Your task to perform on an android device: Show the shopping cart on costco.com. Add logitech g pro to the cart on costco.com, then select checkout. Image 0: 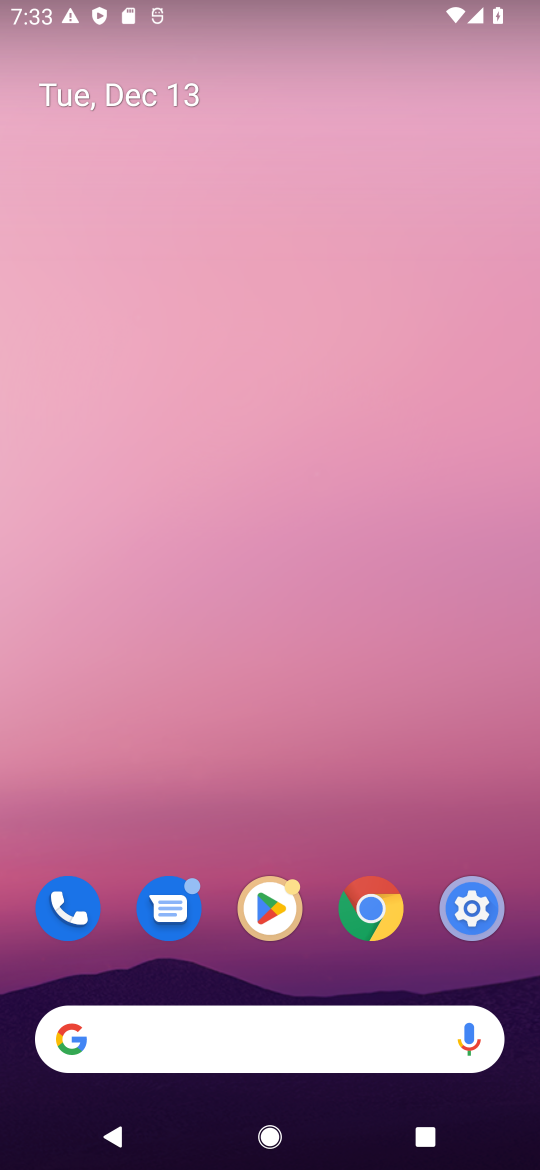
Step 0: press home button
Your task to perform on an android device: Show the shopping cart on costco.com. Add logitech g pro to the cart on costco.com, then select checkout. Image 1: 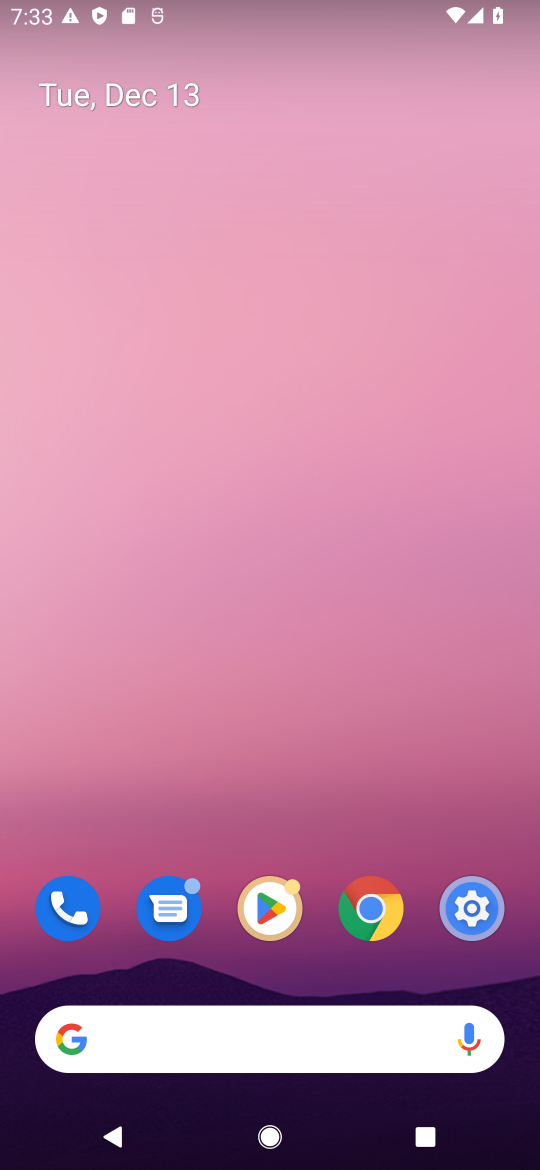
Step 1: click (121, 1026)
Your task to perform on an android device: Show the shopping cart on costco.com. Add logitech g pro to the cart on costco.com, then select checkout. Image 2: 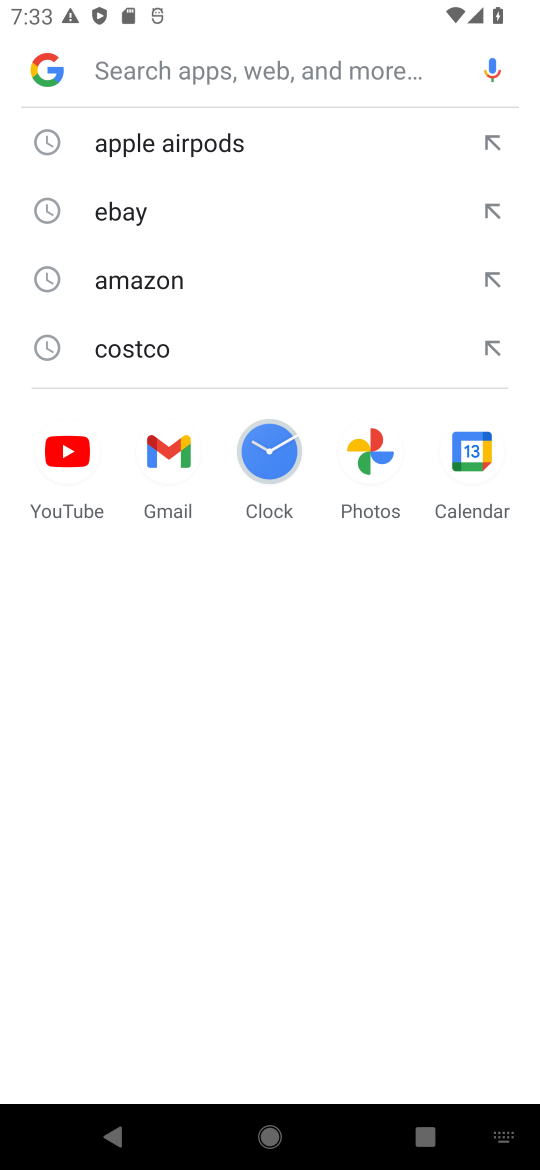
Step 2: type "costco.com"
Your task to perform on an android device: Show the shopping cart on costco.com. Add logitech g pro to the cart on costco.com, then select checkout. Image 3: 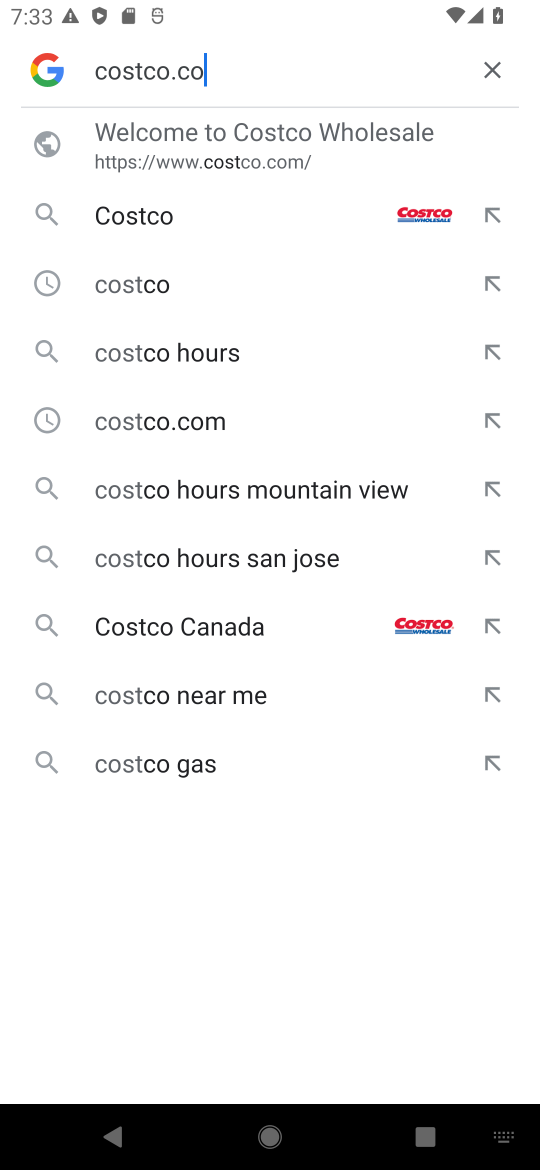
Step 3: press enter
Your task to perform on an android device: Show the shopping cart on costco.com. Add logitech g pro to the cart on costco.com, then select checkout. Image 4: 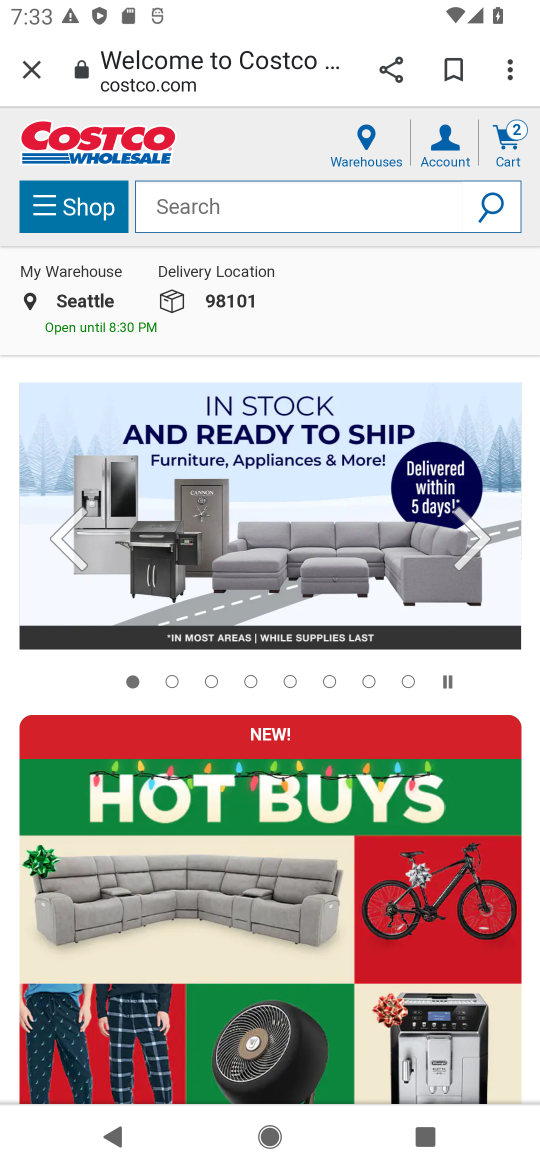
Step 4: click (507, 132)
Your task to perform on an android device: Show the shopping cart on costco.com. Add logitech g pro to the cart on costco.com, then select checkout. Image 5: 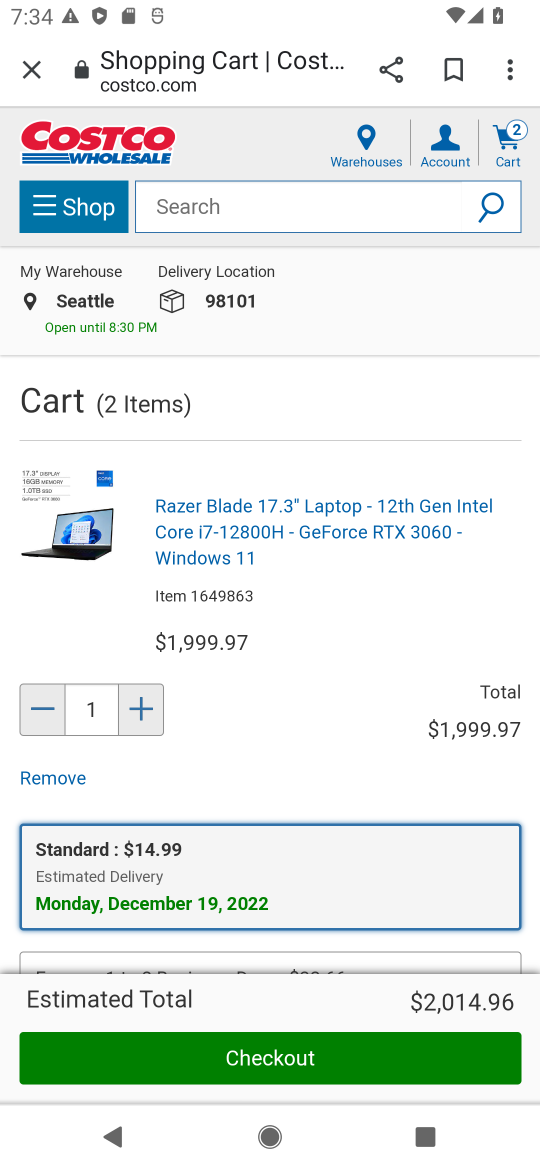
Step 5: click (175, 191)
Your task to perform on an android device: Show the shopping cart on costco.com. Add logitech g pro to the cart on costco.com, then select checkout. Image 6: 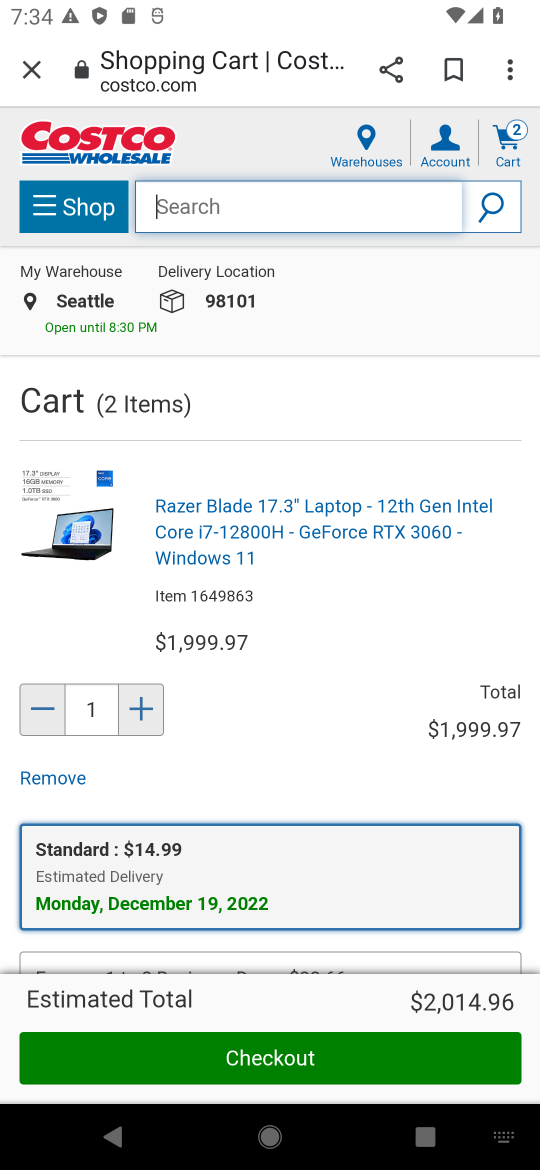
Step 6: type " logitech g pro"
Your task to perform on an android device: Show the shopping cart on costco.com. Add logitech g pro to the cart on costco.com, then select checkout. Image 7: 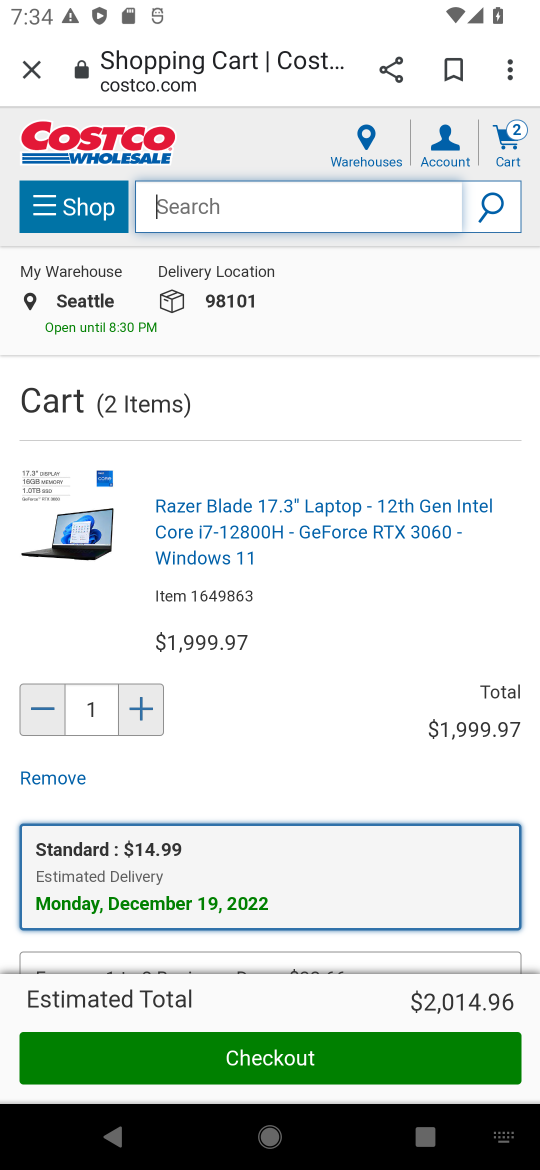
Step 7: click (305, 194)
Your task to perform on an android device: Show the shopping cart on costco.com. Add logitech g pro to the cart on costco.com, then select checkout. Image 8: 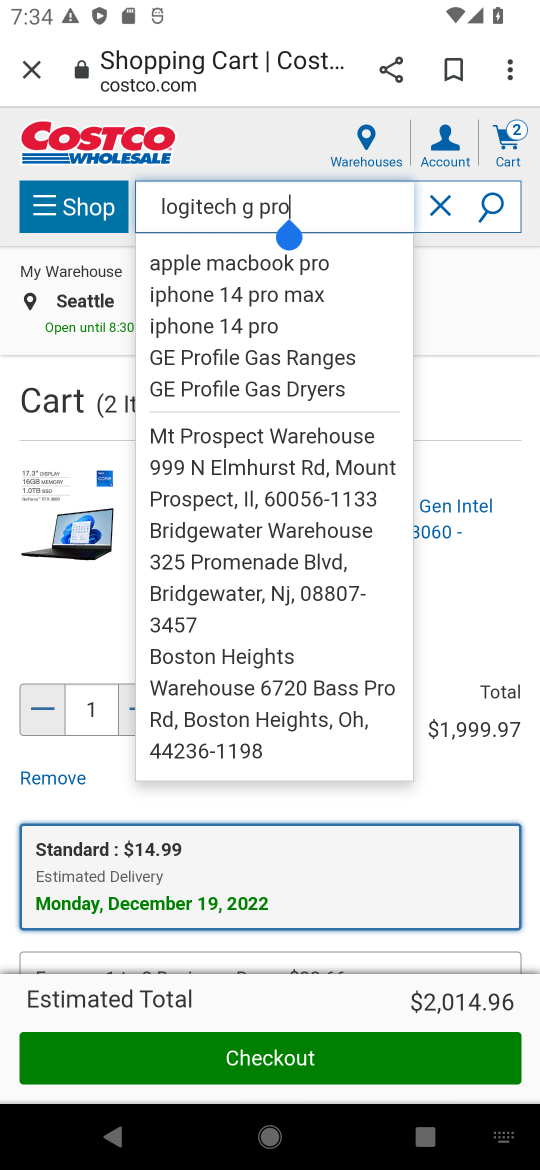
Step 8: type " logitech g pro"
Your task to perform on an android device: Show the shopping cart on costco.com. Add logitech g pro to the cart on costco.com, then select checkout. Image 9: 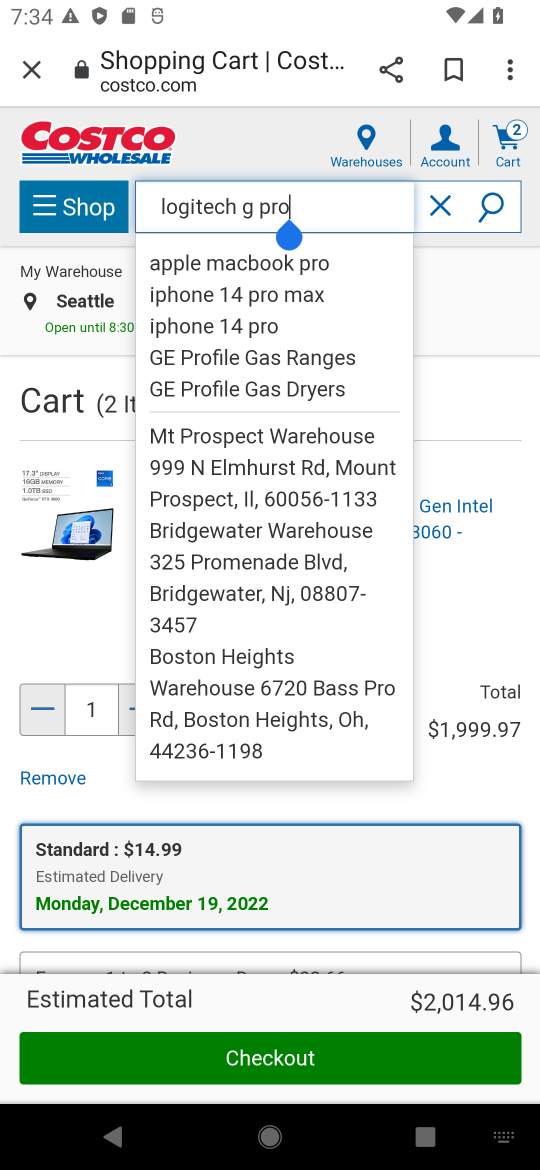
Step 9: click (494, 201)
Your task to perform on an android device: Show the shopping cart on costco.com. Add logitech g pro to the cart on costco.com, then select checkout. Image 10: 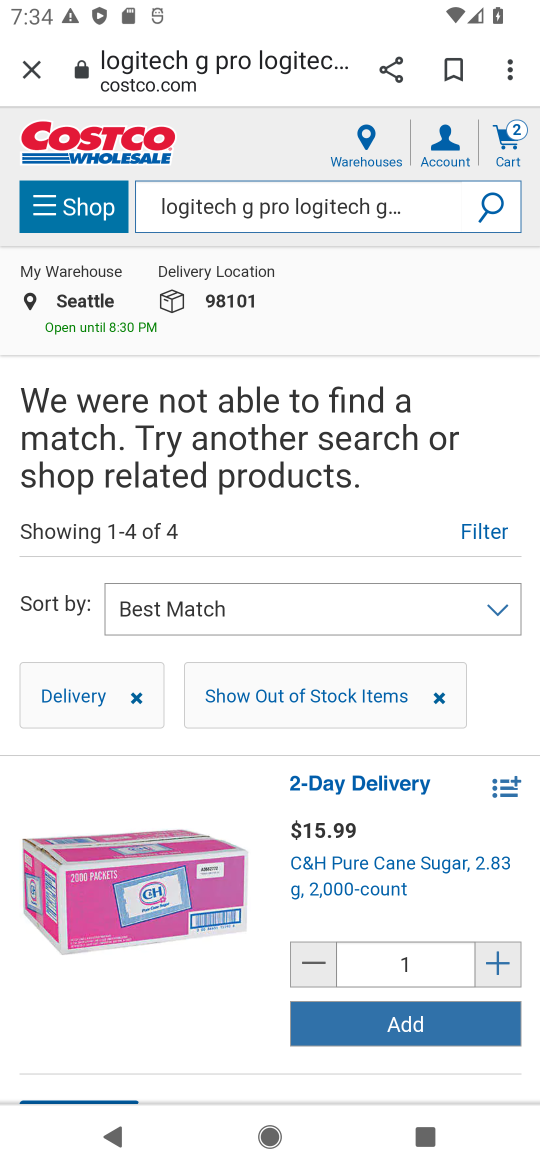
Step 10: task complete